Your task to perform on an android device: check out phone information Image 0: 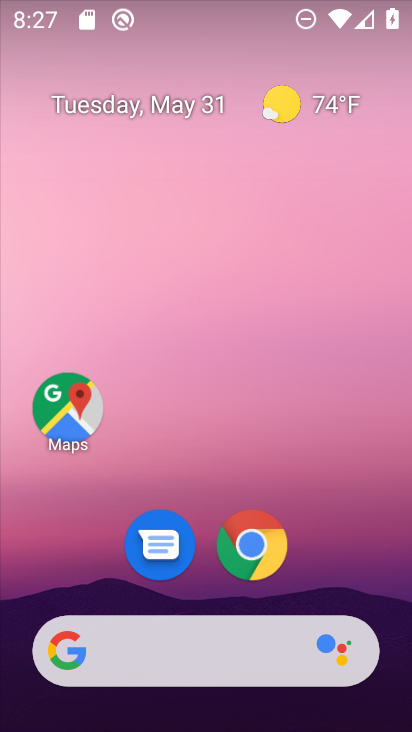
Step 0: drag from (385, 530) to (223, 28)
Your task to perform on an android device: check out phone information Image 1: 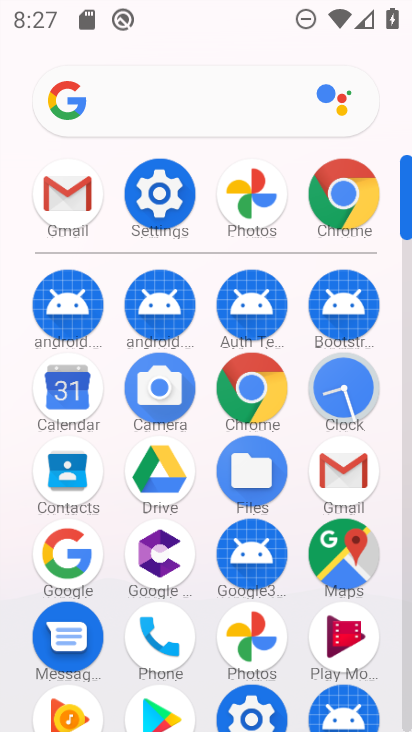
Step 1: drag from (13, 550) to (13, 240)
Your task to perform on an android device: check out phone information Image 2: 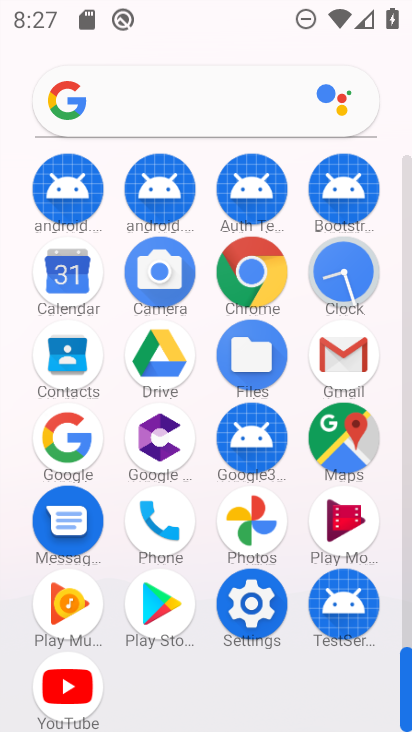
Step 2: click (251, 601)
Your task to perform on an android device: check out phone information Image 3: 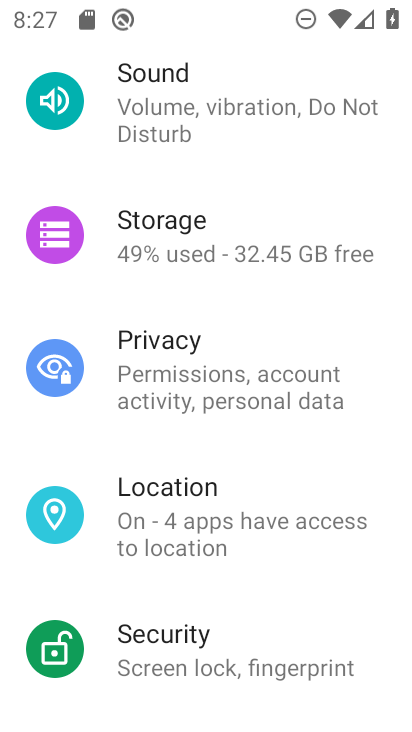
Step 3: drag from (240, 648) to (263, 99)
Your task to perform on an android device: check out phone information Image 4: 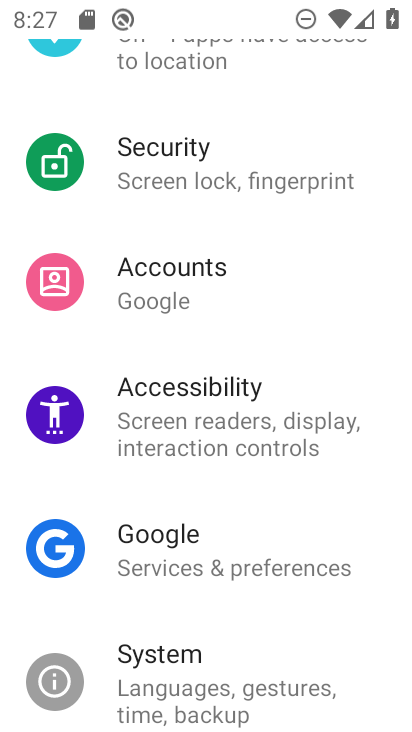
Step 4: drag from (255, 553) to (248, 66)
Your task to perform on an android device: check out phone information Image 5: 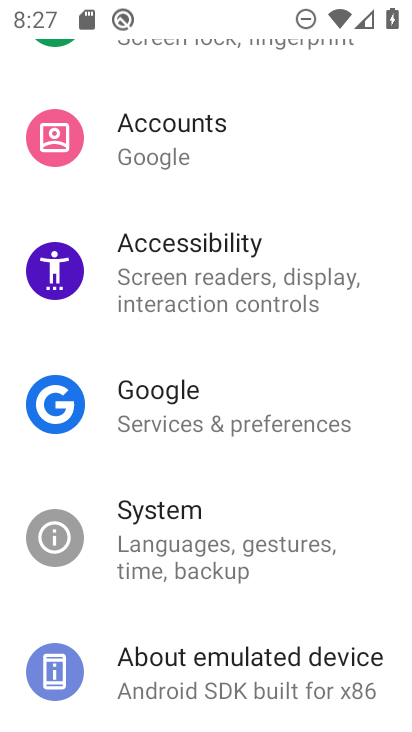
Step 5: click (193, 652)
Your task to perform on an android device: check out phone information Image 6: 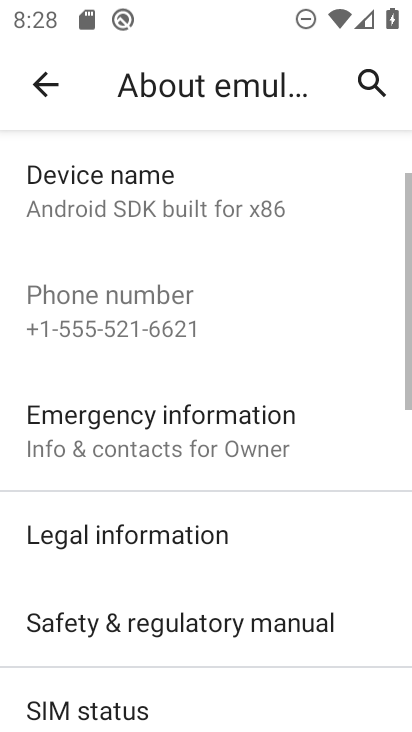
Step 6: task complete